Your task to perform on an android device: Go to internet settings Image 0: 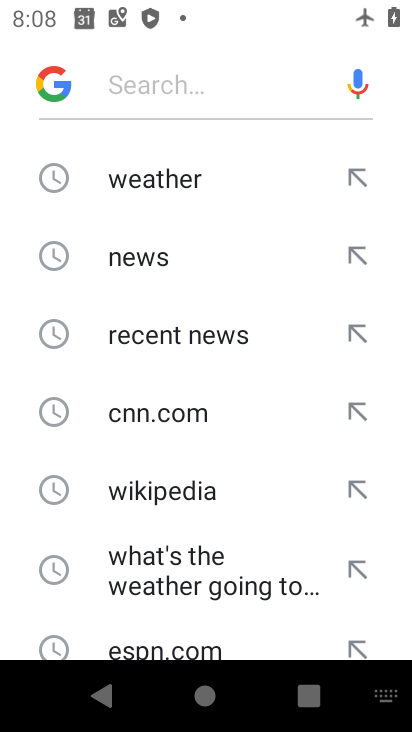
Step 0: press home button
Your task to perform on an android device: Go to internet settings Image 1: 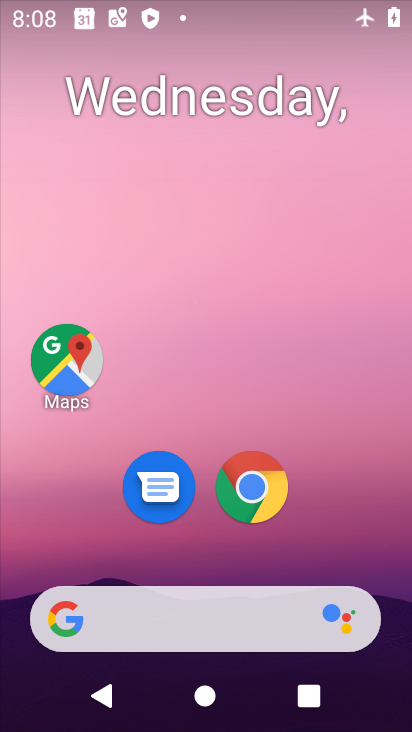
Step 1: drag from (382, 520) to (387, 256)
Your task to perform on an android device: Go to internet settings Image 2: 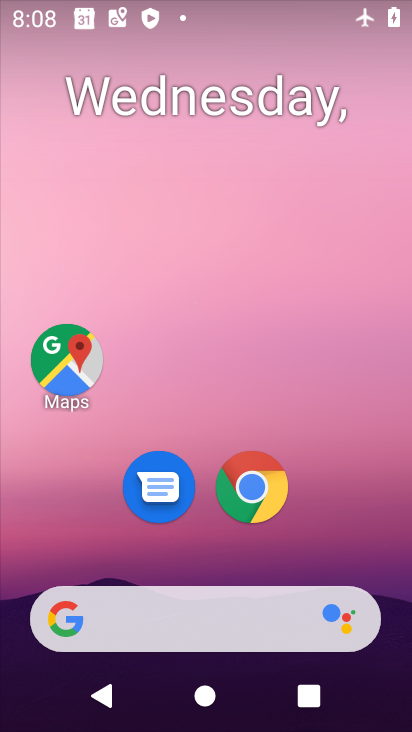
Step 2: drag from (384, 562) to (390, 187)
Your task to perform on an android device: Go to internet settings Image 3: 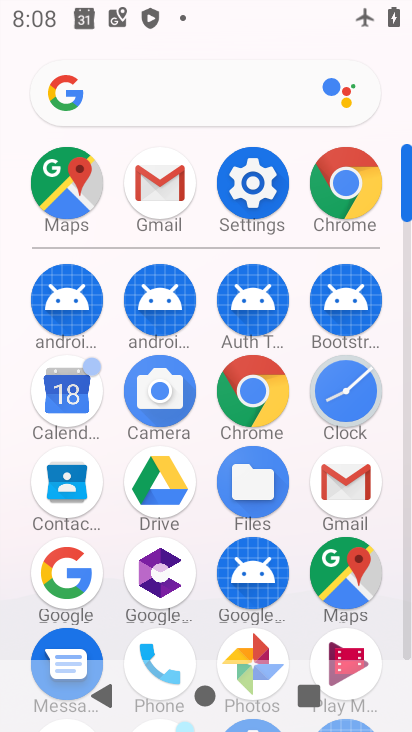
Step 3: click (259, 210)
Your task to perform on an android device: Go to internet settings Image 4: 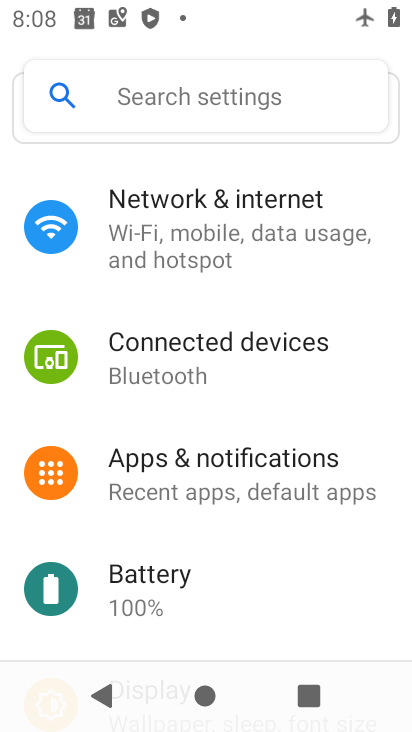
Step 4: drag from (341, 562) to (344, 470)
Your task to perform on an android device: Go to internet settings Image 5: 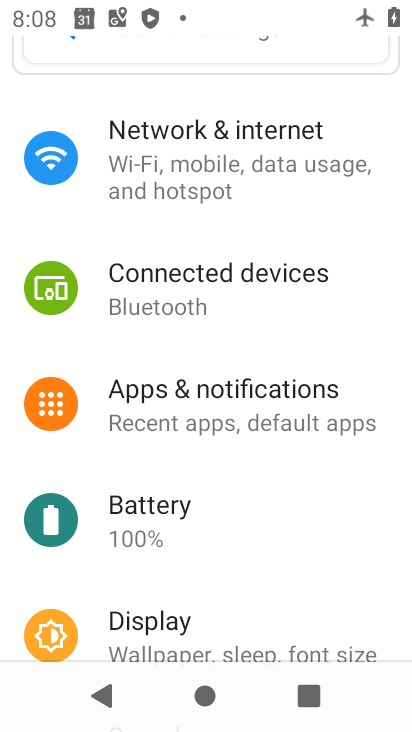
Step 5: drag from (327, 560) to (327, 452)
Your task to perform on an android device: Go to internet settings Image 6: 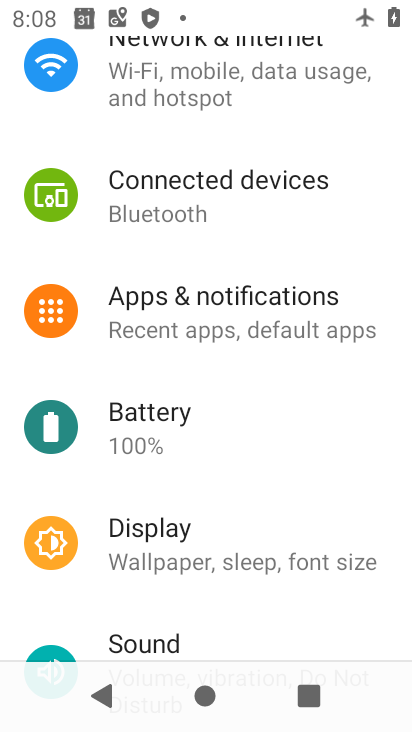
Step 6: drag from (321, 588) to (323, 458)
Your task to perform on an android device: Go to internet settings Image 7: 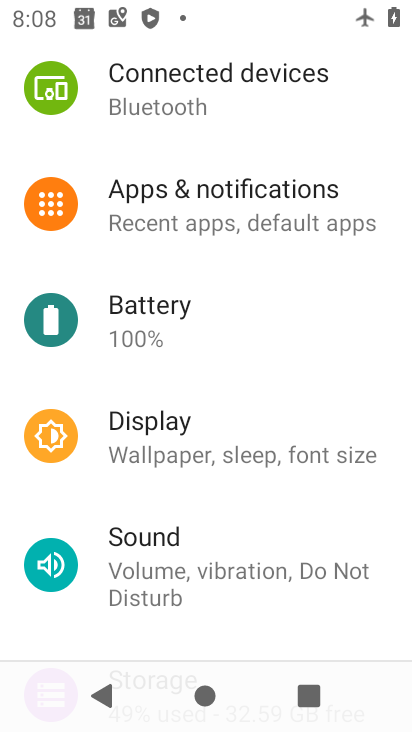
Step 7: drag from (324, 545) to (327, 445)
Your task to perform on an android device: Go to internet settings Image 8: 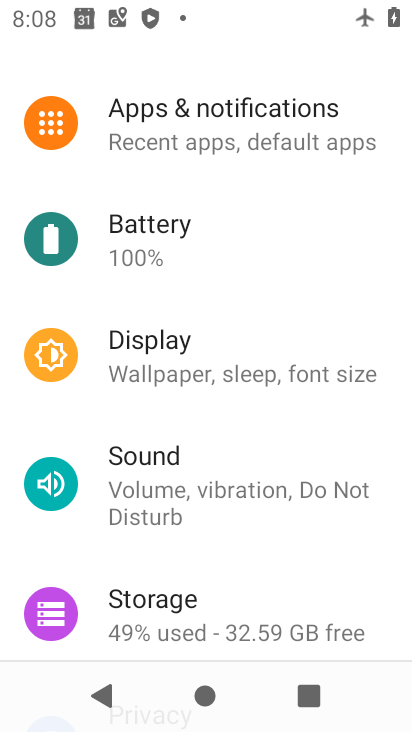
Step 8: drag from (317, 567) to (331, 457)
Your task to perform on an android device: Go to internet settings Image 9: 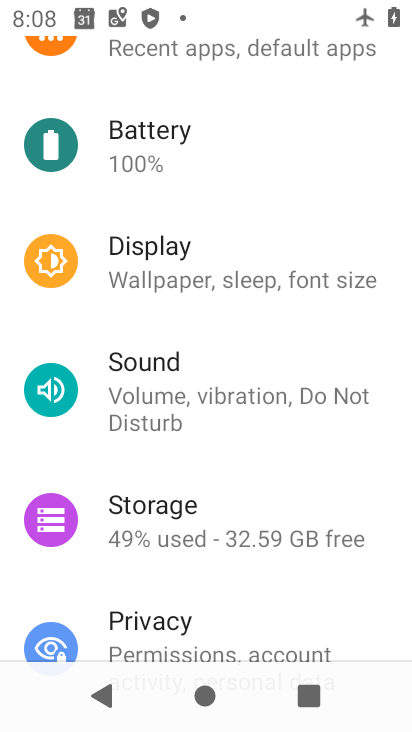
Step 9: drag from (317, 537) to (326, 451)
Your task to perform on an android device: Go to internet settings Image 10: 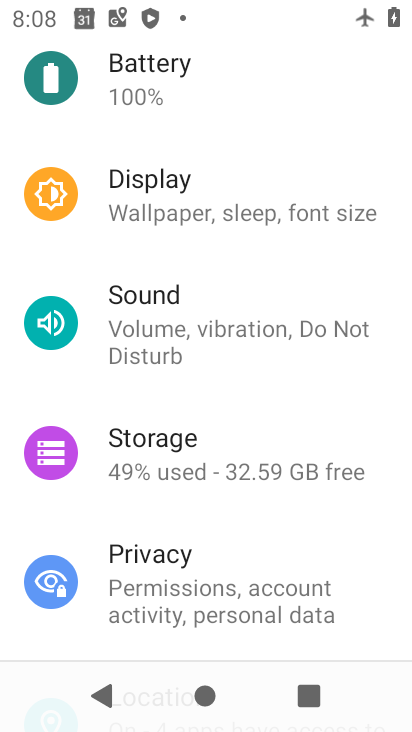
Step 10: drag from (322, 553) to (325, 475)
Your task to perform on an android device: Go to internet settings Image 11: 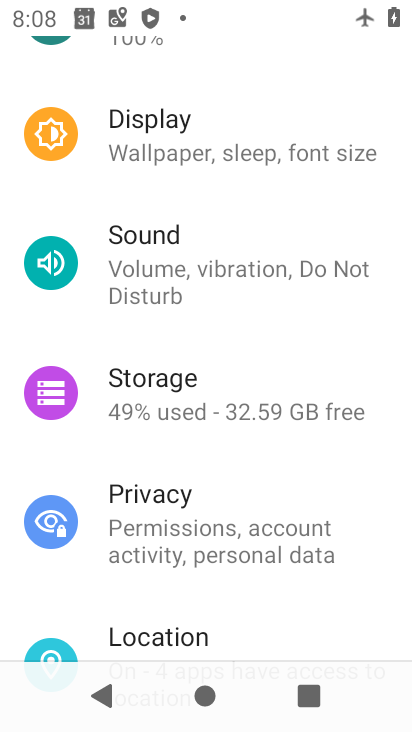
Step 11: drag from (324, 586) to (332, 390)
Your task to perform on an android device: Go to internet settings Image 12: 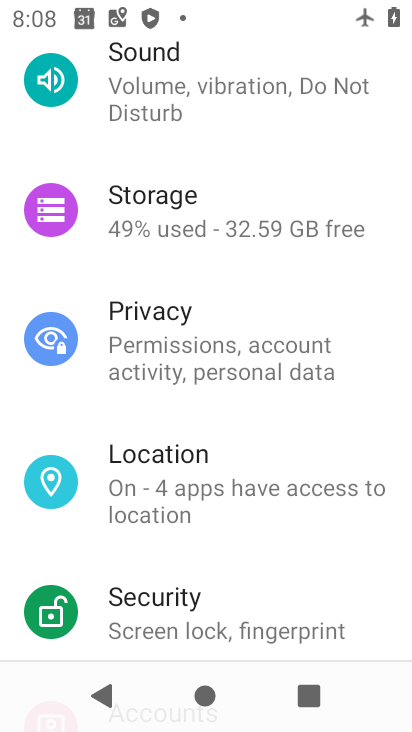
Step 12: drag from (361, 271) to (361, 405)
Your task to perform on an android device: Go to internet settings Image 13: 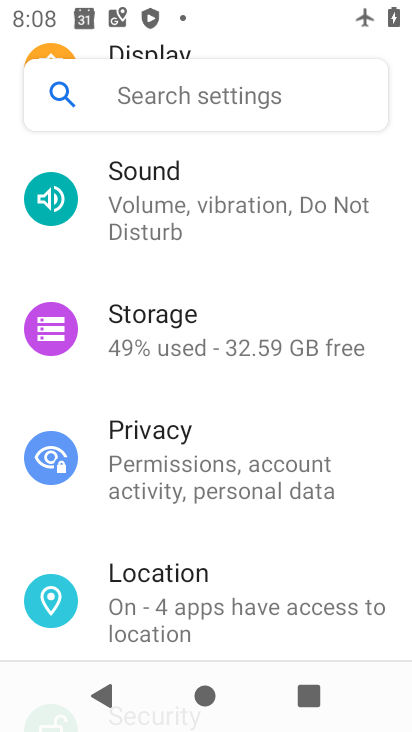
Step 13: drag from (364, 288) to (374, 400)
Your task to perform on an android device: Go to internet settings Image 14: 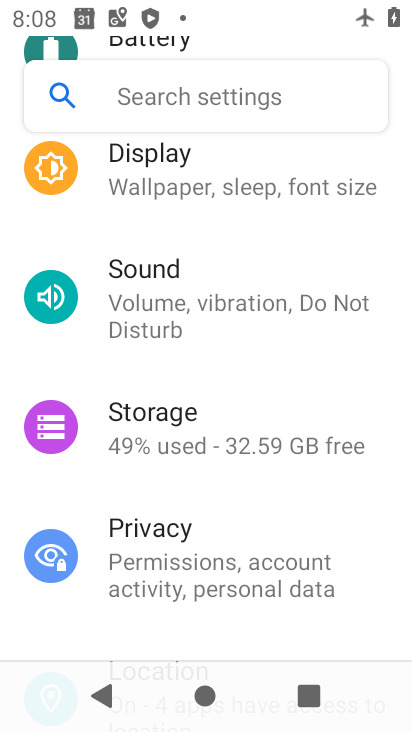
Step 14: drag from (373, 301) to (372, 374)
Your task to perform on an android device: Go to internet settings Image 15: 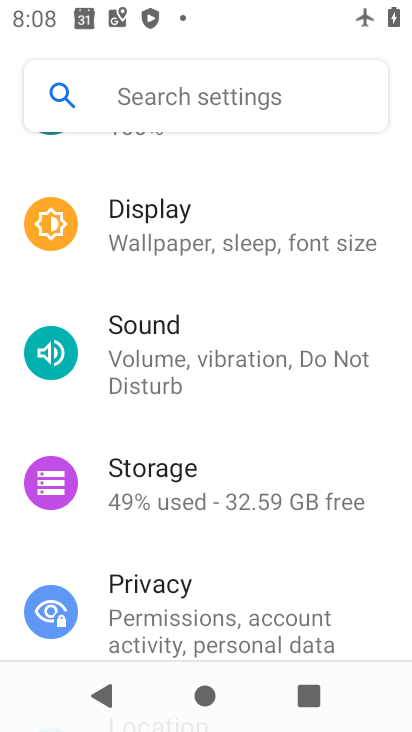
Step 15: drag from (371, 288) to (366, 399)
Your task to perform on an android device: Go to internet settings Image 16: 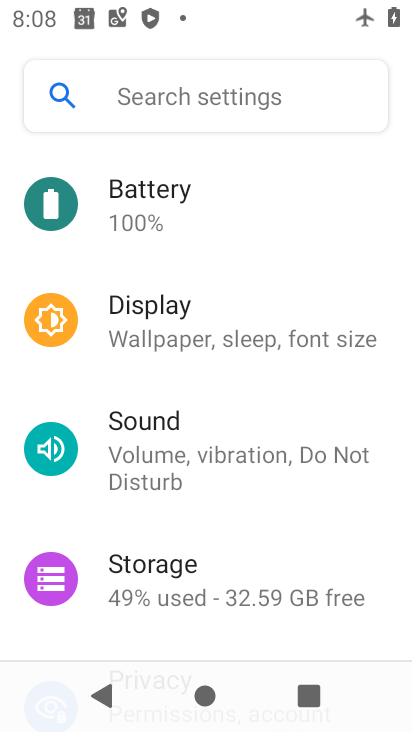
Step 16: drag from (352, 253) to (347, 396)
Your task to perform on an android device: Go to internet settings Image 17: 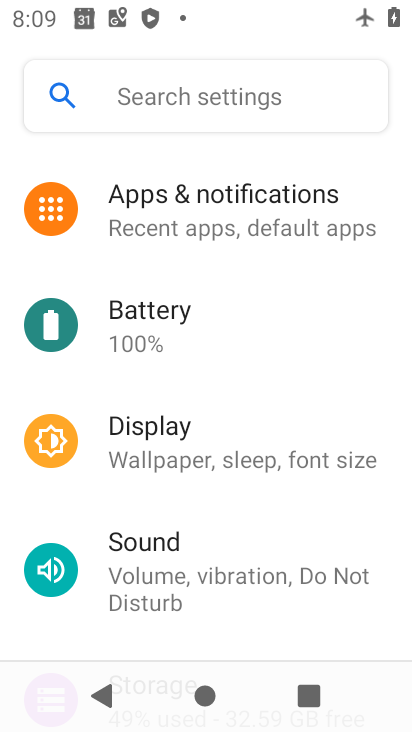
Step 17: drag from (354, 198) to (356, 329)
Your task to perform on an android device: Go to internet settings Image 18: 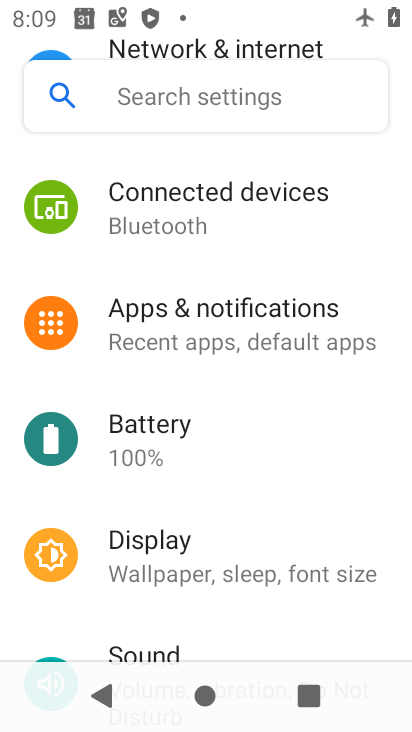
Step 18: drag from (356, 207) to (356, 353)
Your task to perform on an android device: Go to internet settings Image 19: 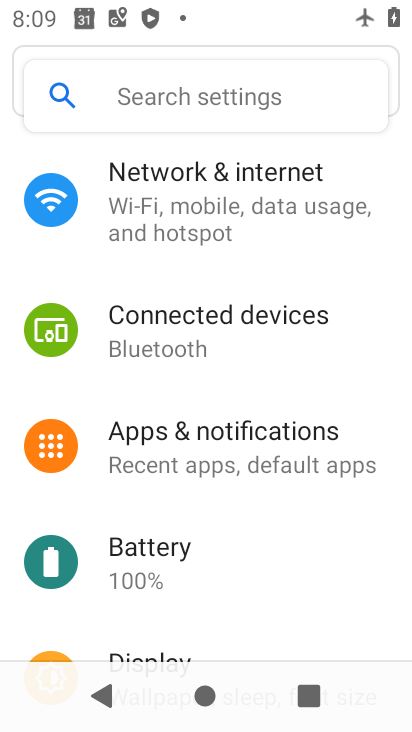
Step 19: click (340, 204)
Your task to perform on an android device: Go to internet settings Image 20: 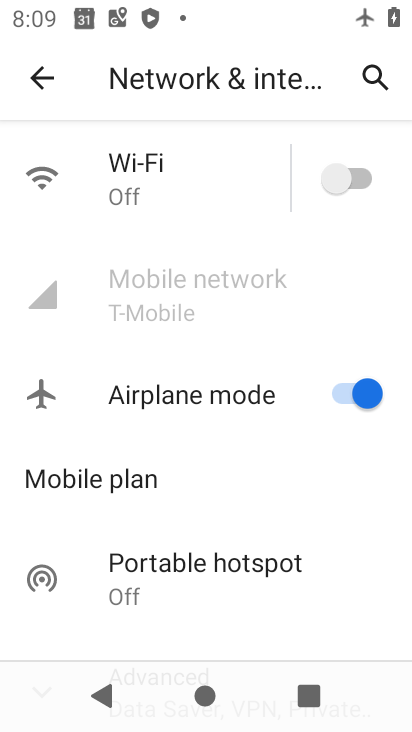
Step 20: task complete